Your task to perform on an android device: Search for pizza restaurants on Maps Image 0: 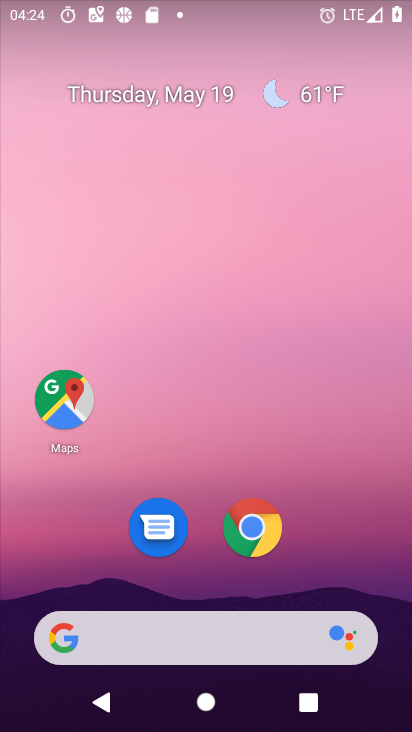
Step 0: click (37, 404)
Your task to perform on an android device: Search for pizza restaurants on Maps Image 1: 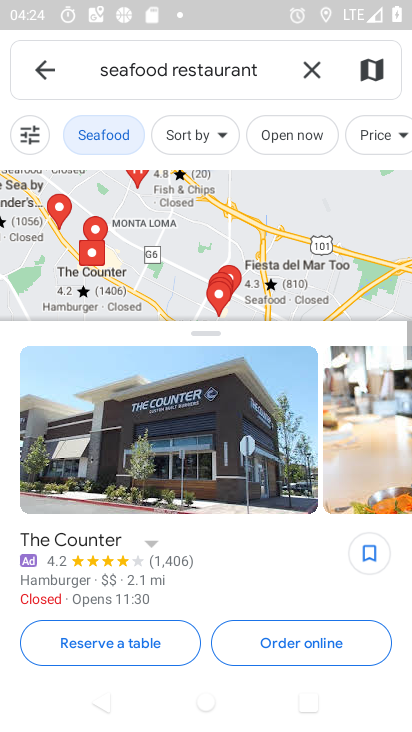
Step 1: click (313, 58)
Your task to perform on an android device: Search for pizza restaurants on Maps Image 2: 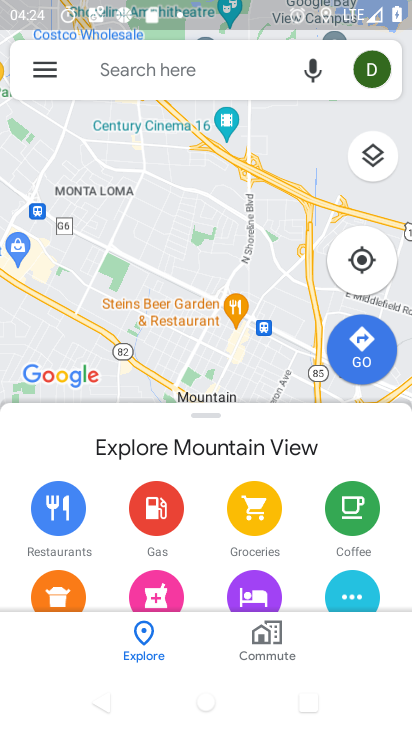
Step 2: click (143, 72)
Your task to perform on an android device: Search for pizza restaurants on Maps Image 3: 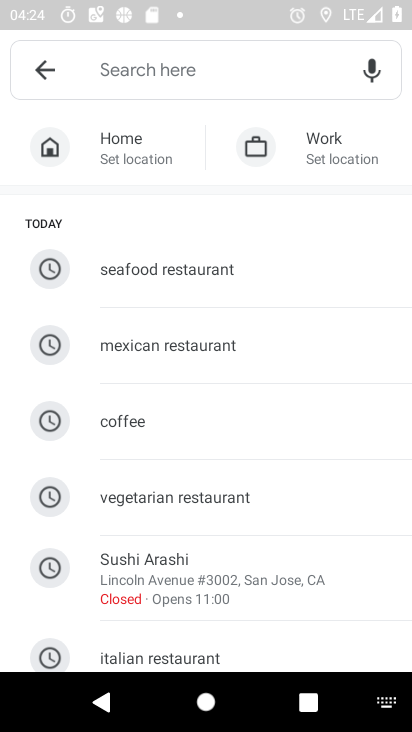
Step 3: drag from (161, 583) to (246, 204)
Your task to perform on an android device: Search for pizza restaurants on Maps Image 4: 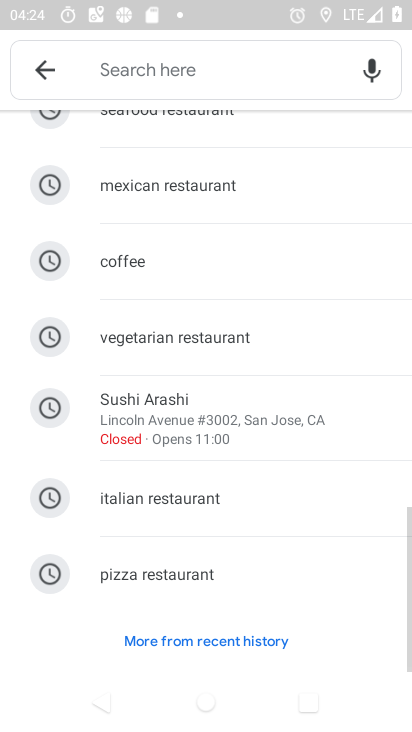
Step 4: click (163, 586)
Your task to perform on an android device: Search for pizza restaurants on Maps Image 5: 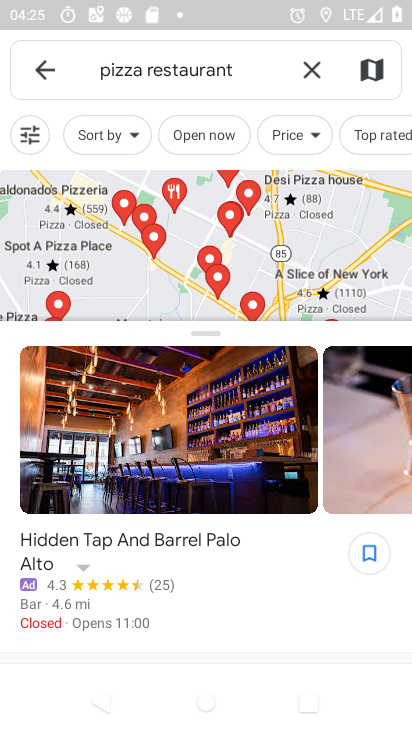
Step 5: task complete